Your task to perform on an android device: delete browsing data in the chrome app Image 0: 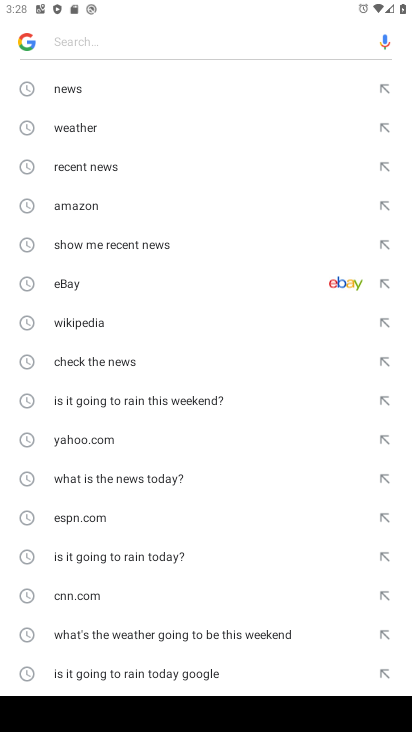
Step 0: press home button
Your task to perform on an android device: delete browsing data in the chrome app Image 1: 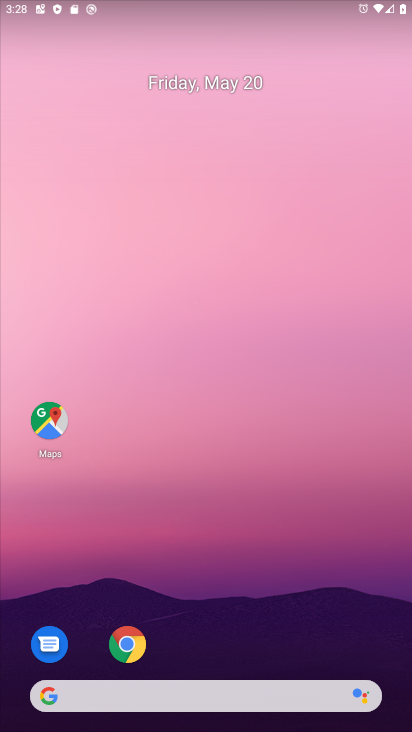
Step 1: click (253, 605)
Your task to perform on an android device: delete browsing data in the chrome app Image 2: 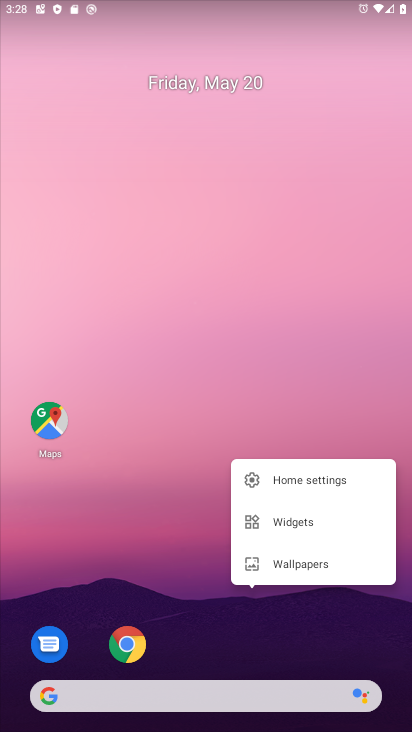
Step 2: click (133, 653)
Your task to perform on an android device: delete browsing data in the chrome app Image 3: 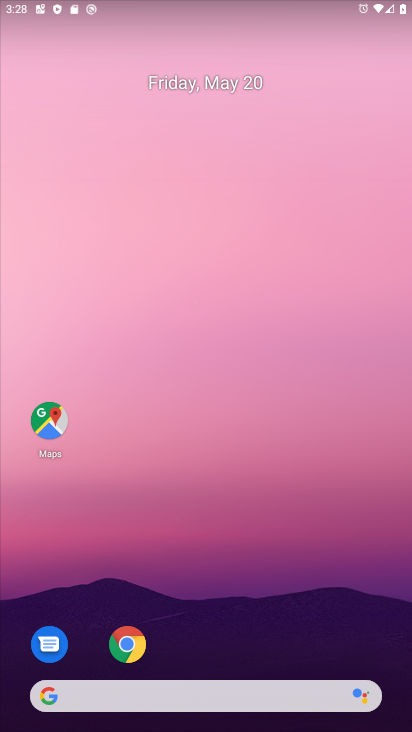
Step 3: click (127, 657)
Your task to perform on an android device: delete browsing data in the chrome app Image 4: 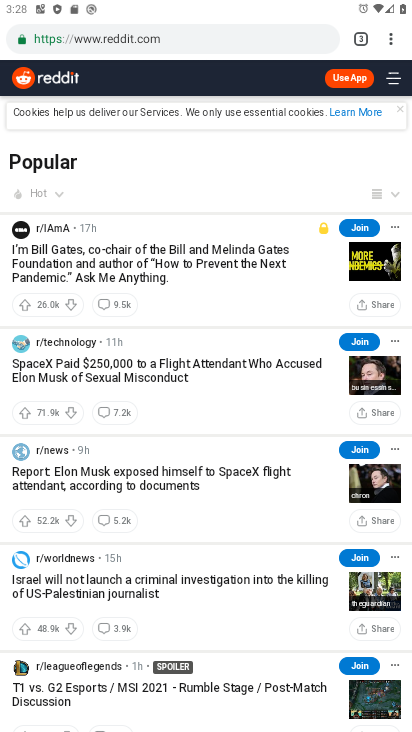
Step 4: click (397, 44)
Your task to perform on an android device: delete browsing data in the chrome app Image 5: 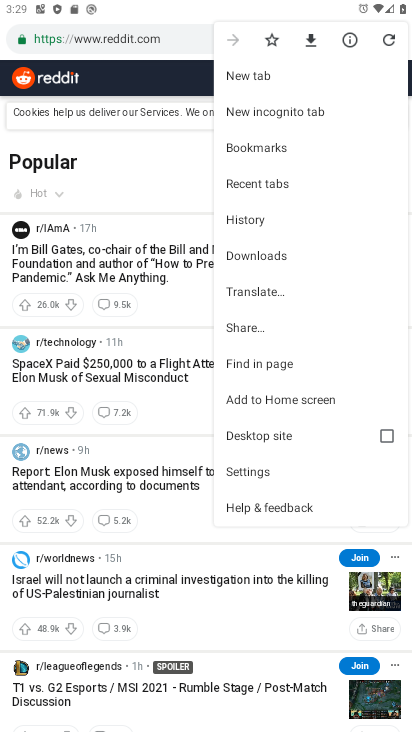
Step 5: click (263, 226)
Your task to perform on an android device: delete browsing data in the chrome app Image 6: 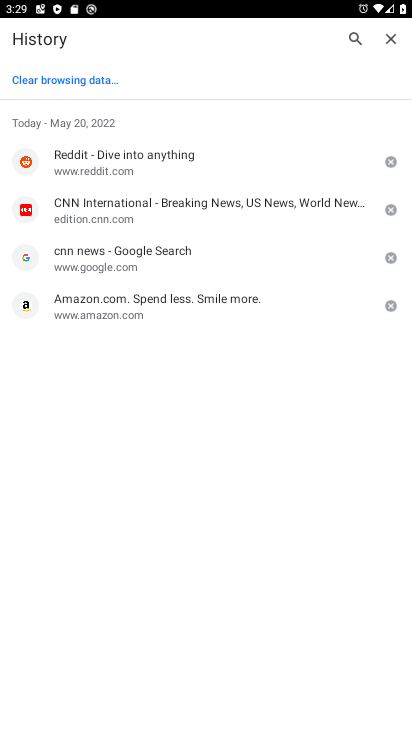
Step 6: click (79, 72)
Your task to perform on an android device: delete browsing data in the chrome app Image 7: 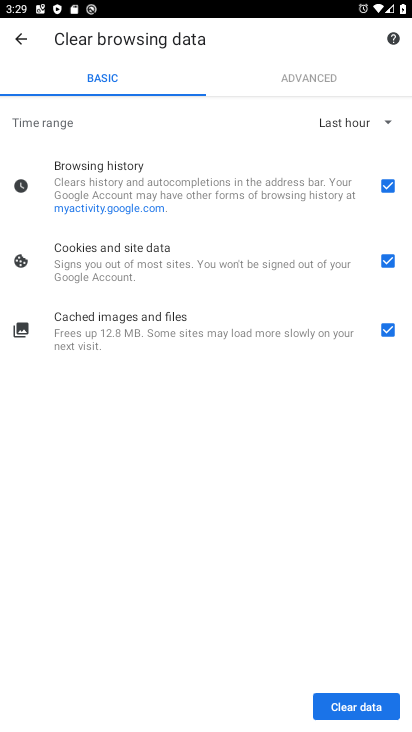
Step 7: click (364, 695)
Your task to perform on an android device: delete browsing data in the chrome app Image 8: 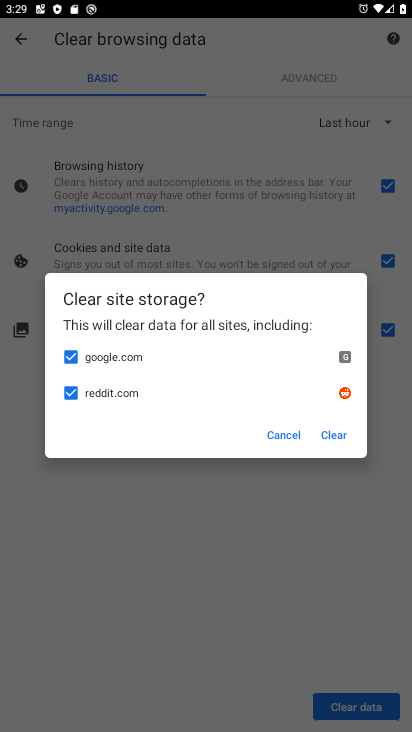
Step 8: click (331, 426)
Your task to perform on an android device: delete browsing data in the chrome app Image 9: 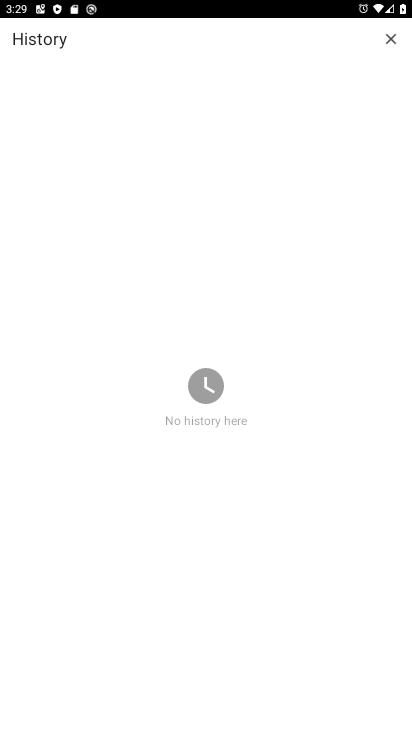
Step 9: task complete